Your task to perform on an android device: turn off picture-in-picture Image 0: 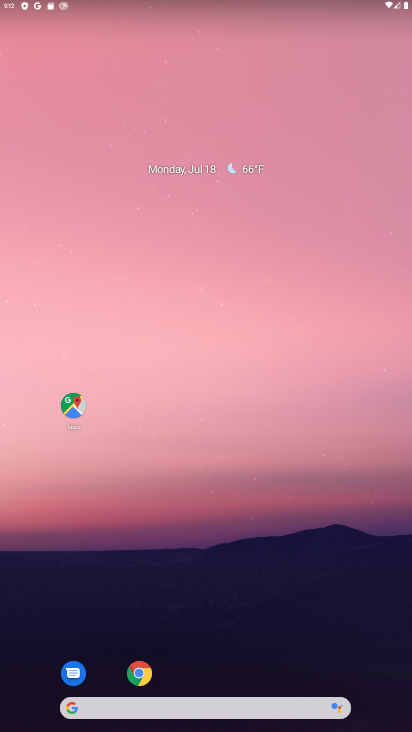
Step 0: click (141, 672)
Your task to perform on an android device: turn off picture-in-picture Image 1: 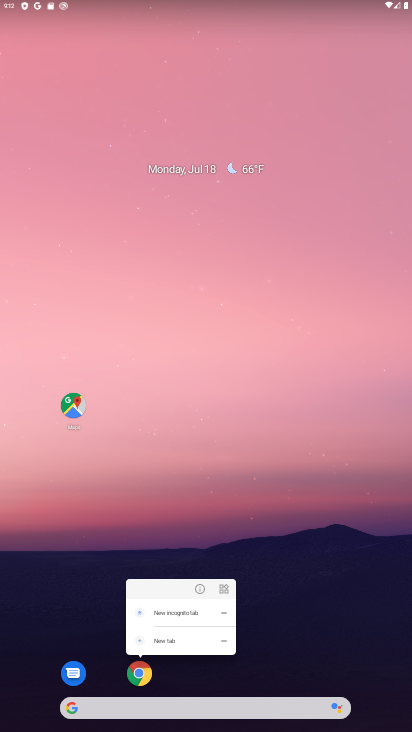
Step 1: click (199, 585)
Your task to perform on an android device: turn off picture-in-picture Image 2: 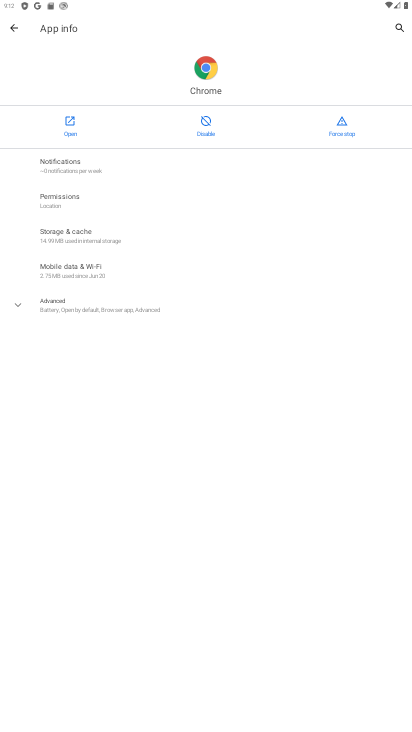
Step 2: click (49, 299)
Your task to perform on an android device: turn off picture-in-picture Image 3: 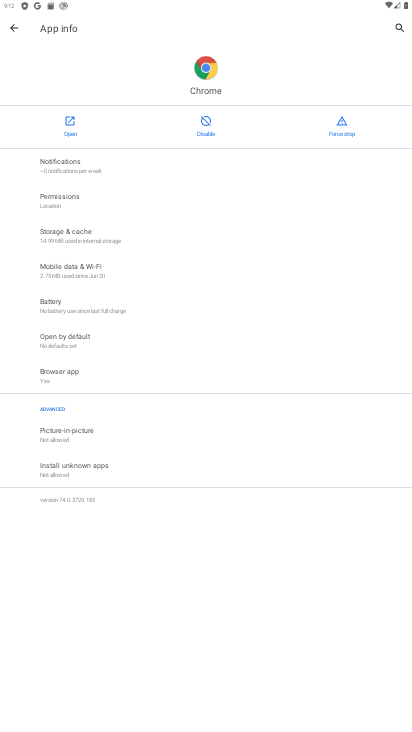
Step 3: click (77, 441)
Your task to perform on an android device: turn off picture-in-picture Image 4: 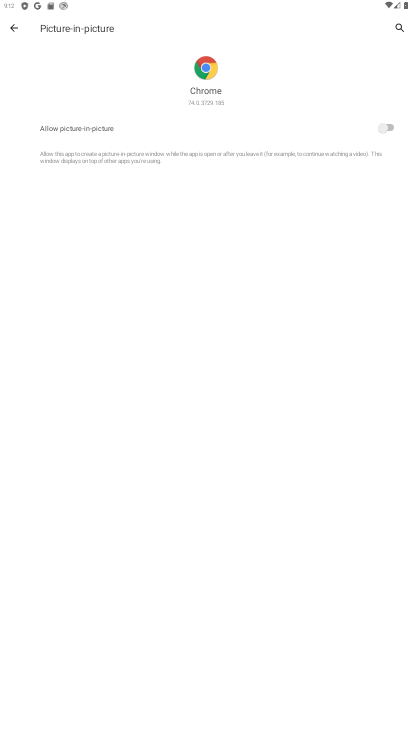
Step 4: task complete